Your task to perform on an android device: turn pop-ups on in chrome Image 0: 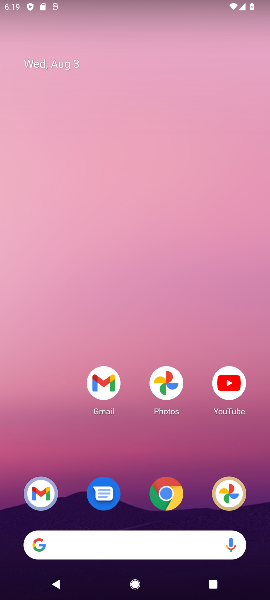
Step 0: click (164, 489)
Your task to perform on an android device: turn pop-ups on in chrome Image 1: 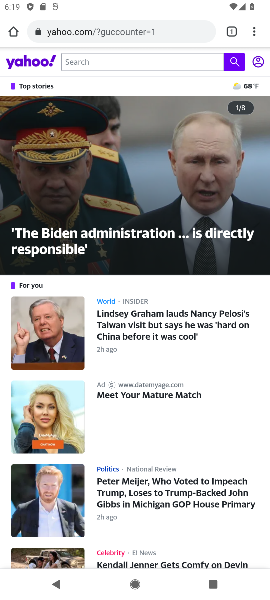
Step 1: click (253, 33)
Your task to perform on an android device: turn pop-ups on in chrome Image 2: 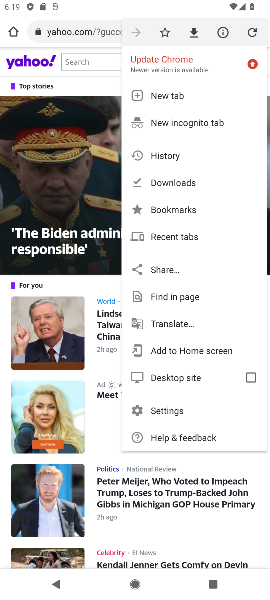
Step 2: click (173, 409)
Your task to perform on an android device: turn pop-ups on in chrome Image 3: 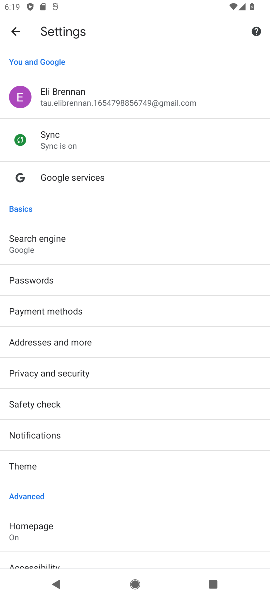
Step 3: drag from (68, 515) to (68, 264)
Your task to perform on an android device: turn pop-ups on in chrome Image 4: 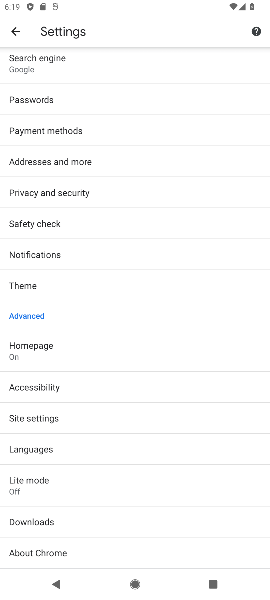
Step 4: click (37, 416)
Your task to perform on an android device: turn pop-ups on in chrome Image 5: 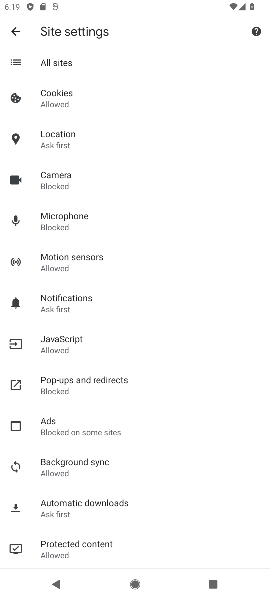
Step 5: click (95, 372)
Your task to perform on an android device: turn pop-ups on in chrome Image 6: 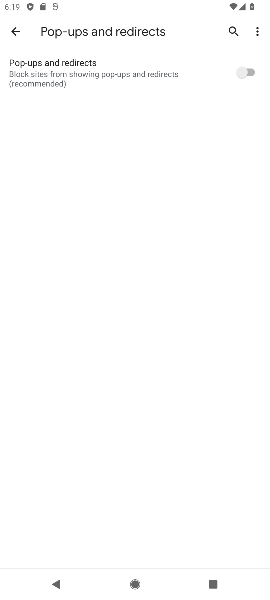
Step 6: click (251, 69)
Your task to perform on an android device: turn pop-ups on in chrome Image 7: 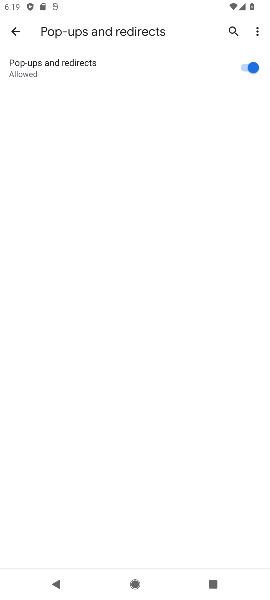
Step 7: task complete